Your task to perform on an android device: Open wifi settings Image 0: 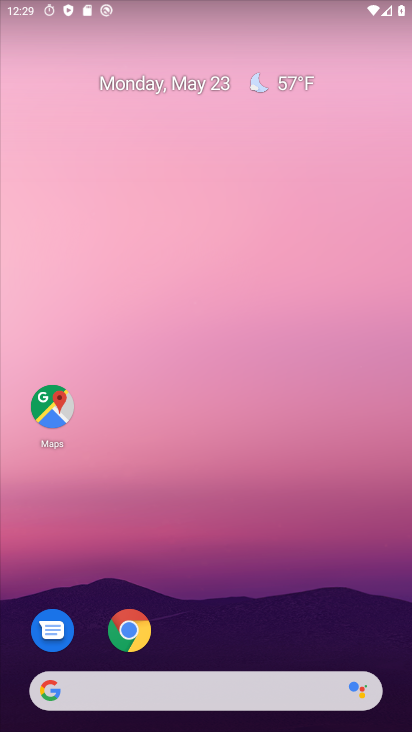
Step 0: drag from (247, 535) to (208, 22)
Your task to perform on an android device: Open wifi settings Image 1: 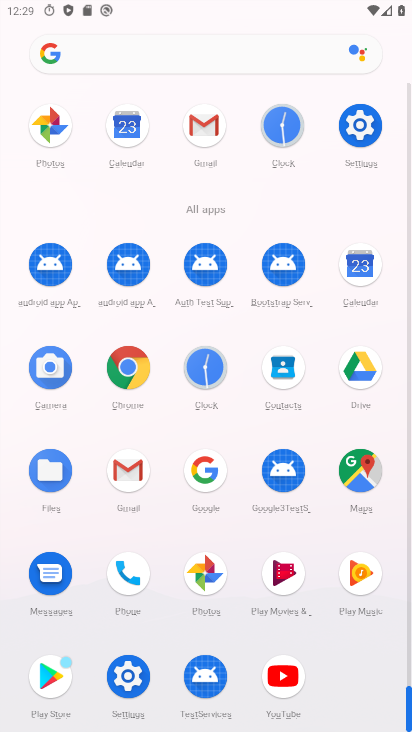
Step 1: drag from (3, 553) to (7, 216)
Your task to perform on an android device: Open wifi settings Image 2: 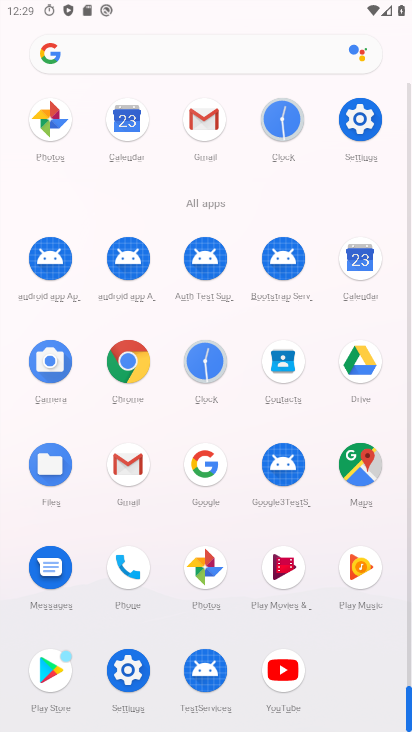
Step 2: click (126, 671)
Your task to perform on an android device: Open wifi settings Image 3: 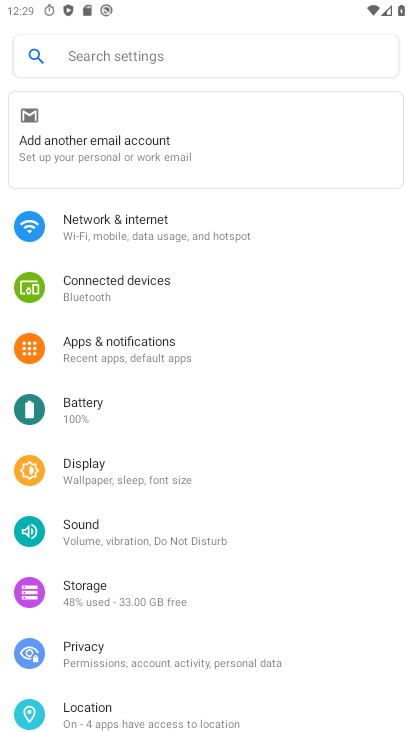
Step 3: drag from (280, 546) to (277, 284)
Your task to perform on an android device: Open wifi settings Image 4: 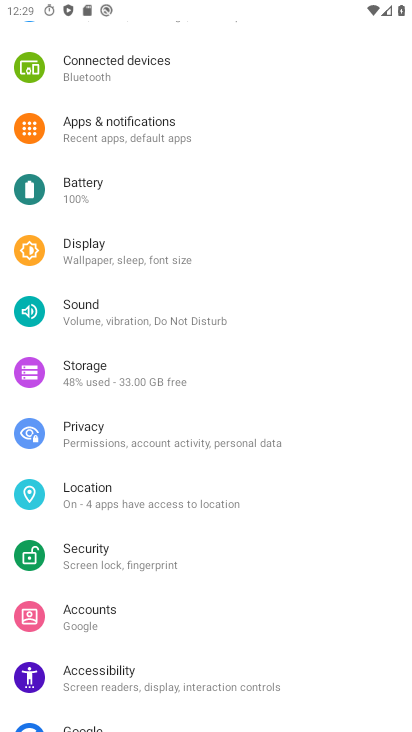
Step 4: drag from (195, 120) to (196, 487)
Your task to perform on an android device: Open wifi settings Image 5: 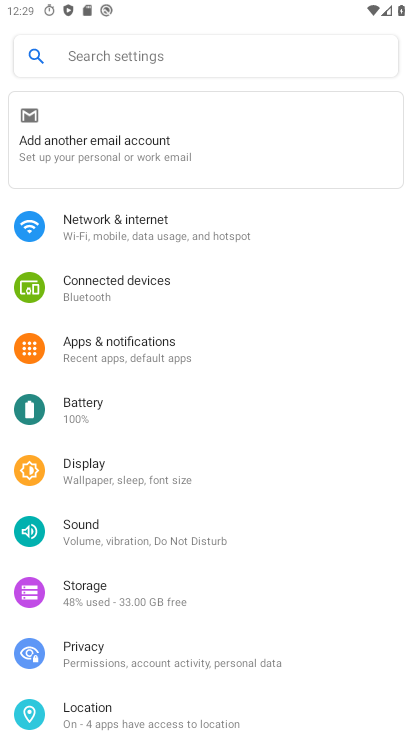
Step 5: click (164, 220)
Your task to perform on an android device: Open wifi settings Image 6: 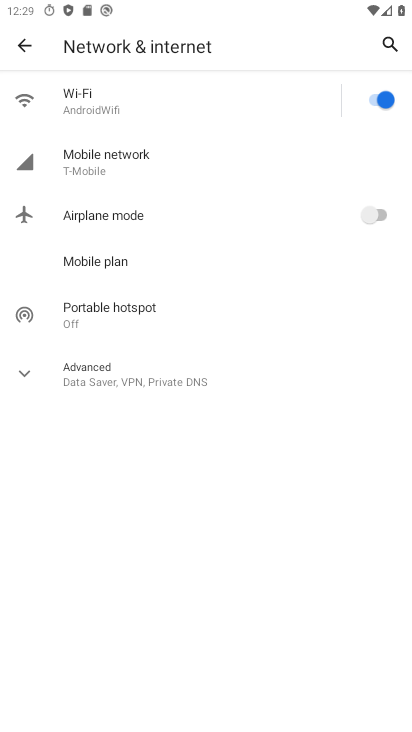
Step 6: click (37, 375)
Your task to perform on an android device: Open wifi settings Image 7: 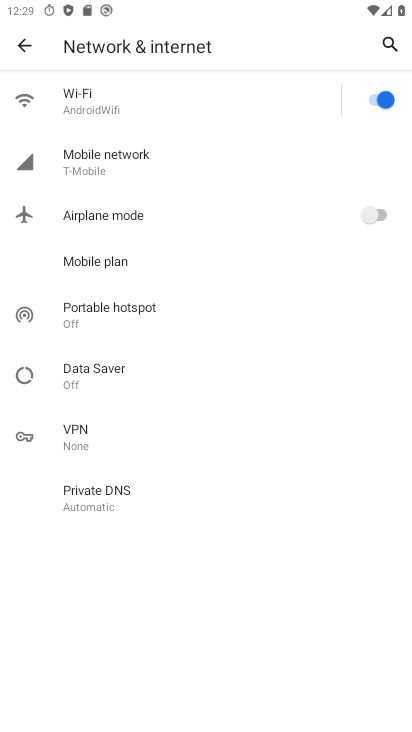
Step 7: click (77, 100)
Your task to perform on an android device: Open wifi settings Image 8: 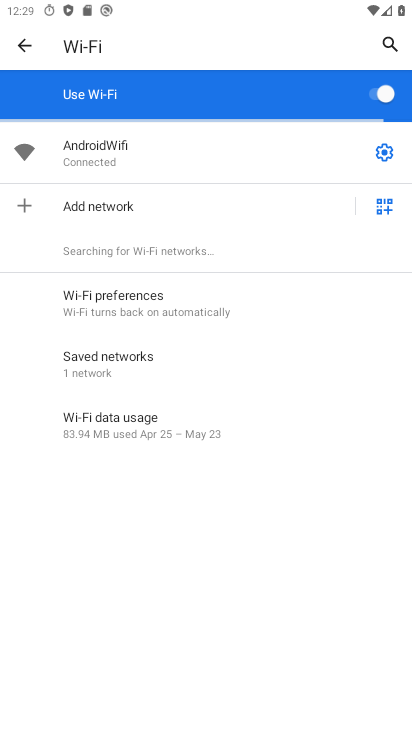
Step 8: task complete